Your task to perform on an android device: Open calendar and show me the second week of next month Image 0: 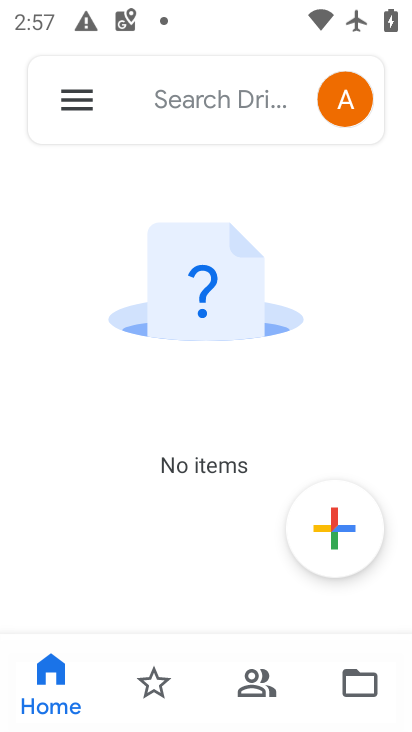
Step 0: press home button
Your task to perform on an android device: Open calendar and show me the second week of next month Image 1: 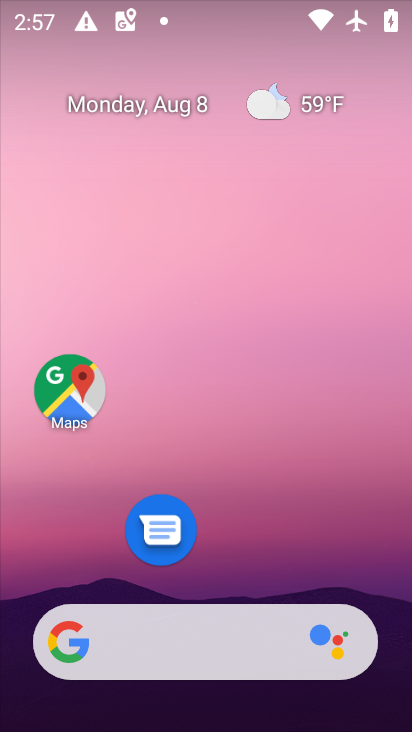
Step 1: drag from (221, 586) to (227, 61)
Your task to perform on an android device: Open calendar and show me the second week of next month Image 2: 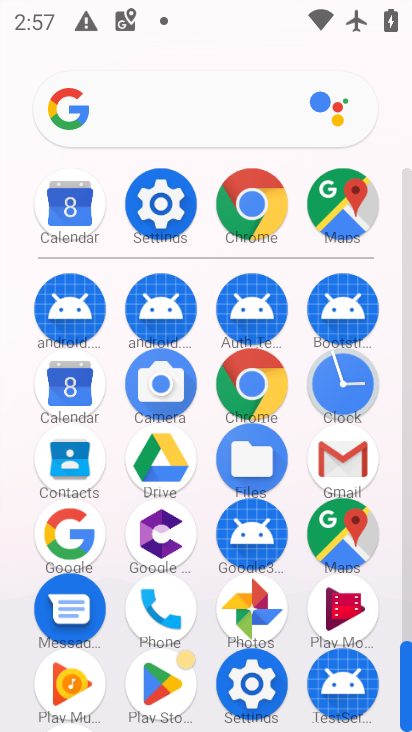
Step 2: click (66, 390)
Your task to perform on an android device: Open calendar and show me the second week of next month Image 3: 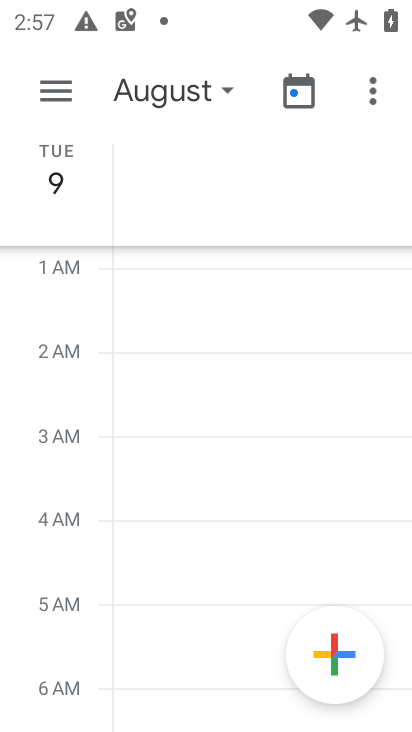
Step 3: click (228, 94)
Your task to perform on an android device: Open calendar and show me the second week of next month Image 4: 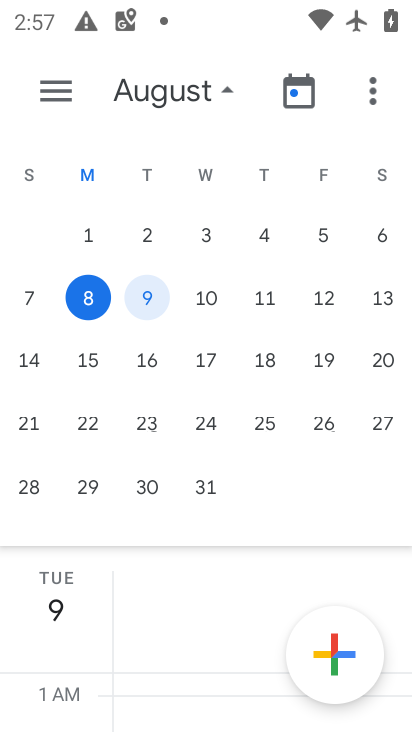
Step 4: drag from (351, 318) to (124, 329)
Your task to perform on an android device: Open calendar and show me the second week of next month Image 5: 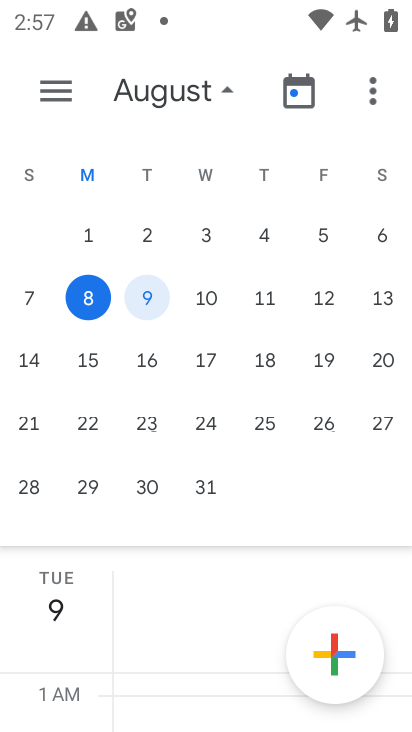
Step 5: drag from (372, 298) to (47, 295)
Your task to perform on an android device: Open calendar and show me the second week of next month Image 6: 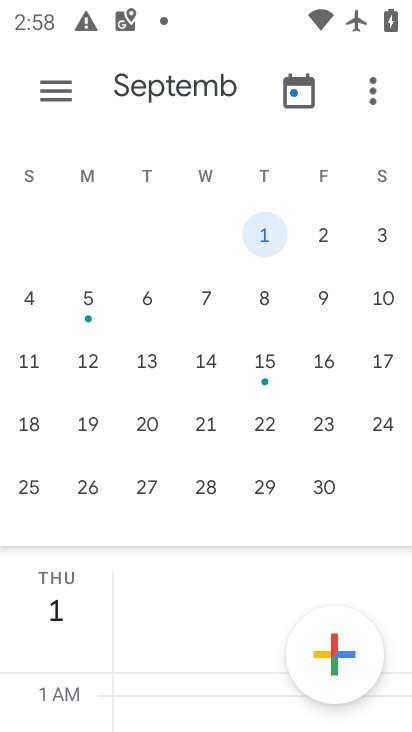
Step 6: click (88, 361)
Your task to perform on an android device: Open calendar and show me the second week of next month Image 7: 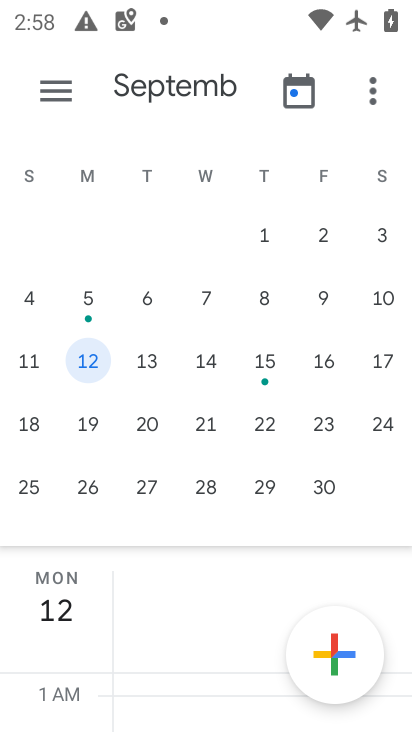
Step 7: click (55, 97)
Your task to perform on an android device: Open calendar and show me the second week of next month Image 8: 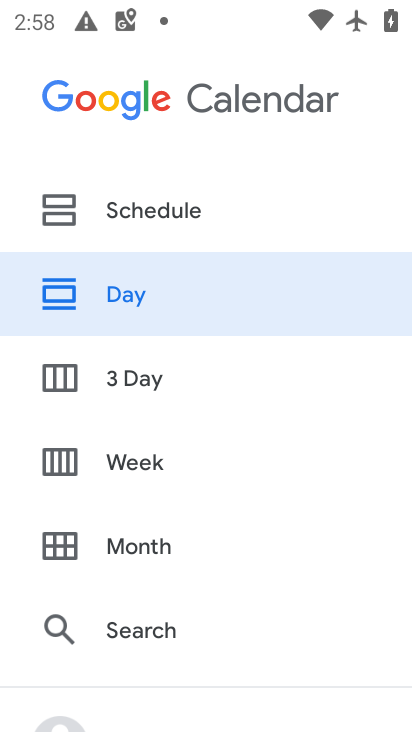
Step 8: click (140, 460)
Your task to perform on an android device: Open calendar and show me the second week of next month Image 9: 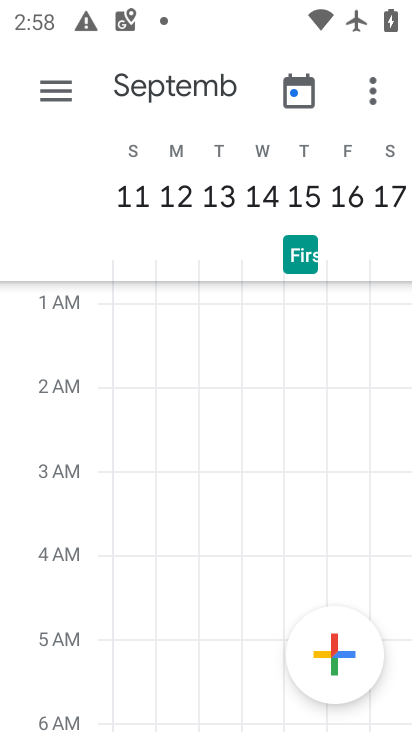
Step 9: task complete